Your task to perform on an android device: toggle location history Image 0: 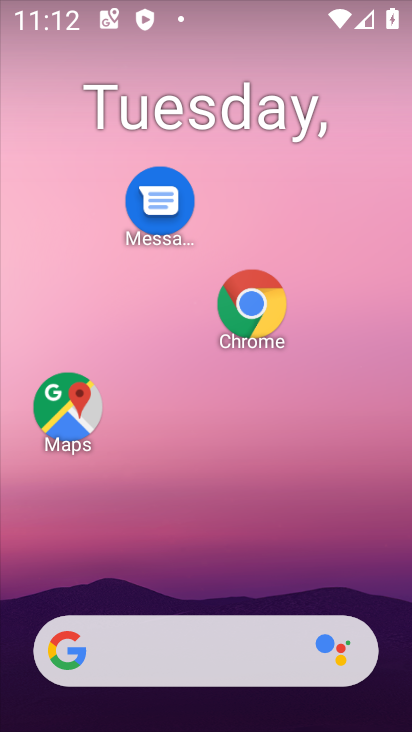
Step 0: drag from (316, 625) to (312, 212)
Your task to perform on an android device: toggle location history Image 1: 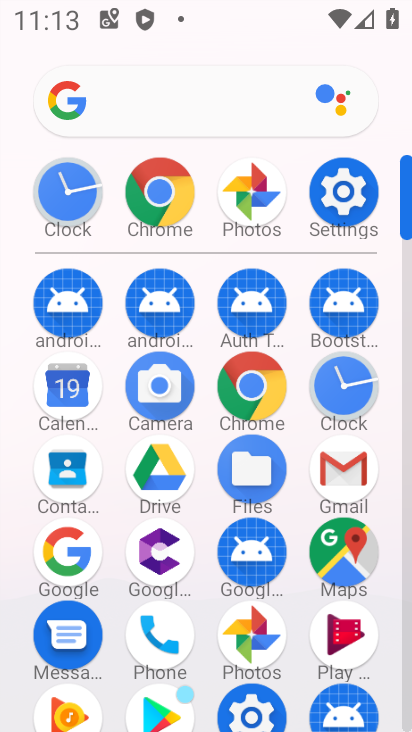
Step 1: click (336, 189)
Your task to perform on an android device: toggle location history Image 2: 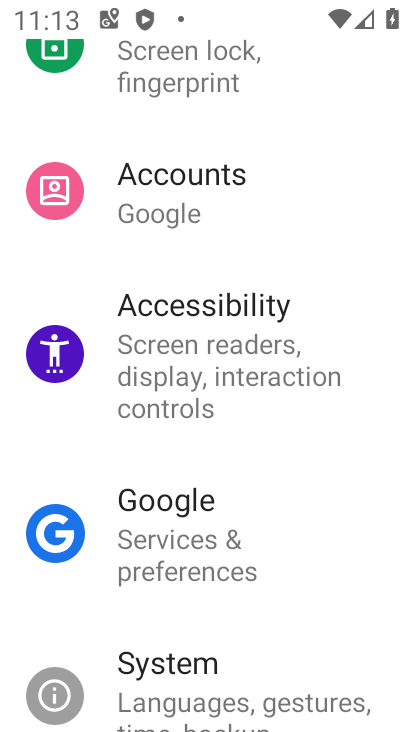
Step 2: drag from (247, 630) to (315, 195)
Your task to perform on an android device: toggle location history Image 3: 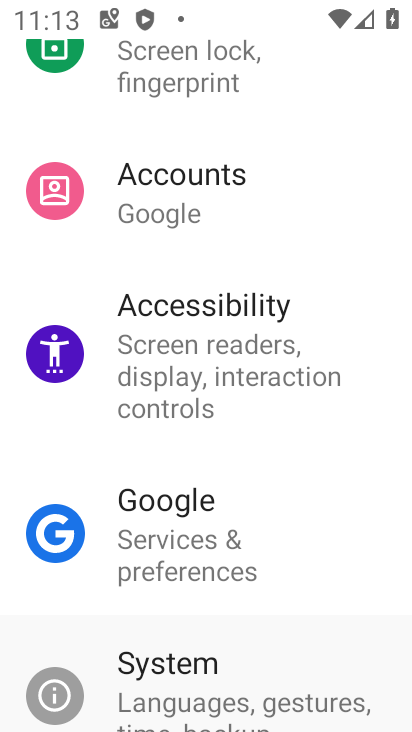
Step 3: drag from (254, 560) to (282, 179)
Your task to perform on an android device: toggle location history Image 4: 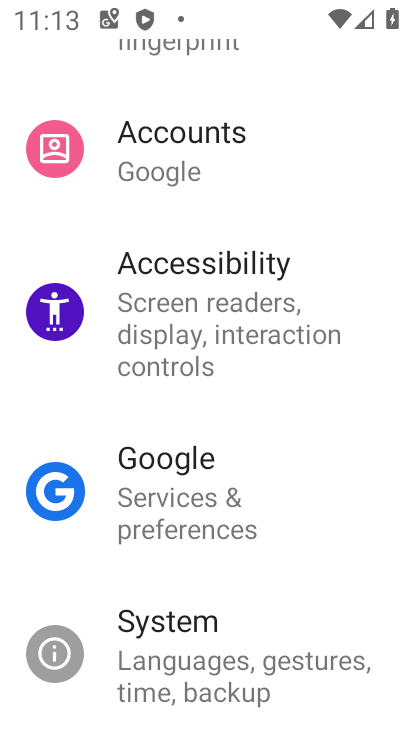
Step 4: drag from (228, 579) to (254, 118)
Your task to perform on an android device: toggle location history Image 5: 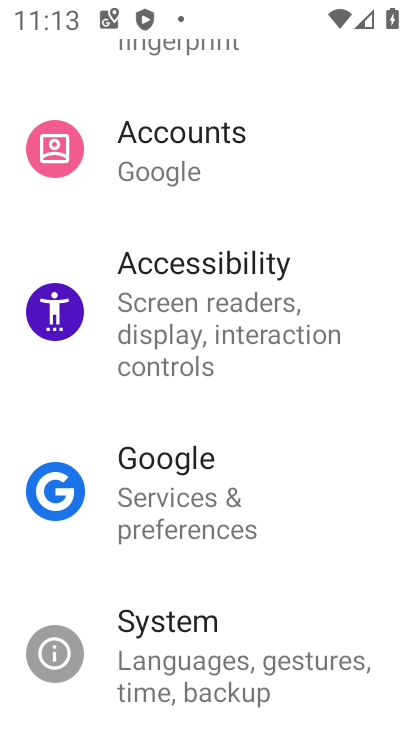
Step 5: drag from (224, 546) to (235, 167)
Your task to perform on an android device: toggle location history Image 6: 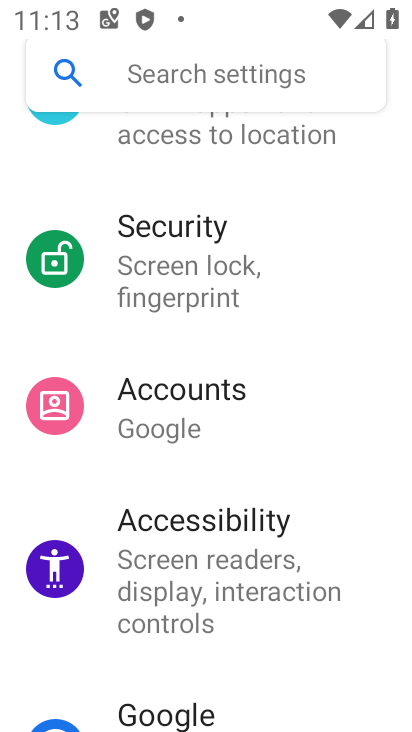
Step 6: drag from (214, 531) to (278, 172)
Your task to perform on an android device: toggle location history Image 7: 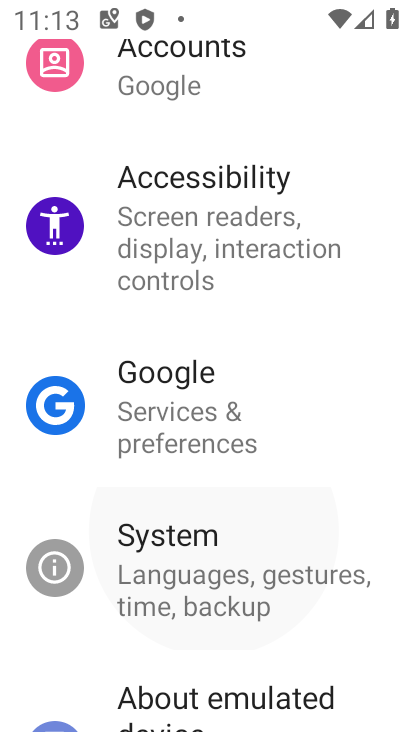
Step 7: drag from (229, 504) to (277, 157)
Your task to perform on an android device: toggle location history Image 8: 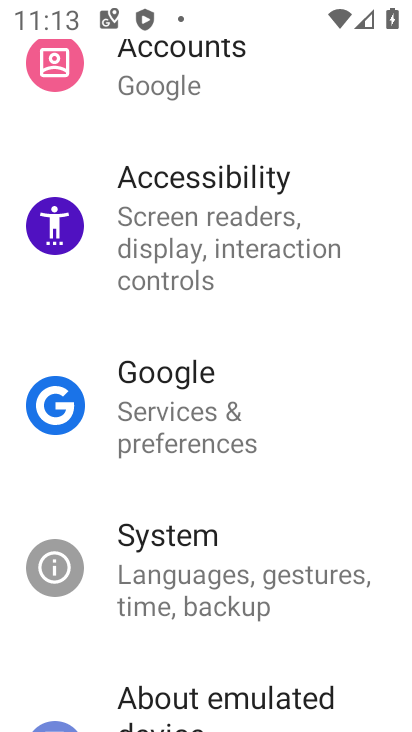
Step 8: drag from (248, 211) to (246, 663)
Your task to perform on an android device: toggle location history Image 9: 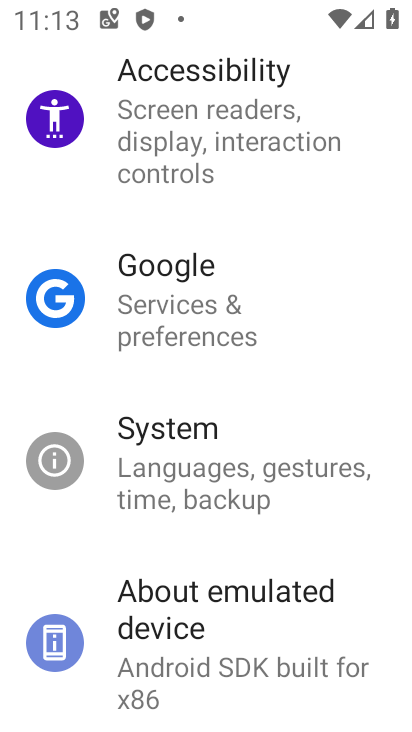
Step 9: drag from (206, 251) to (201, 657)
Your task to perform on an android device: toggle location history Image 10: 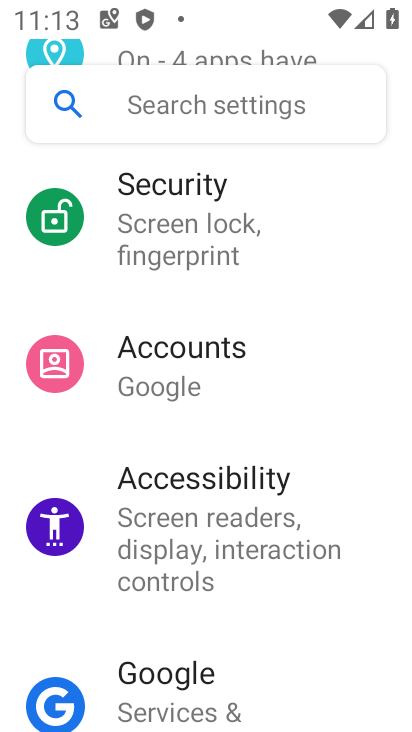
Step 10: drag from (233, 334) to (246, 599)
Your task to perform on an android device: toggle location history Image 11: 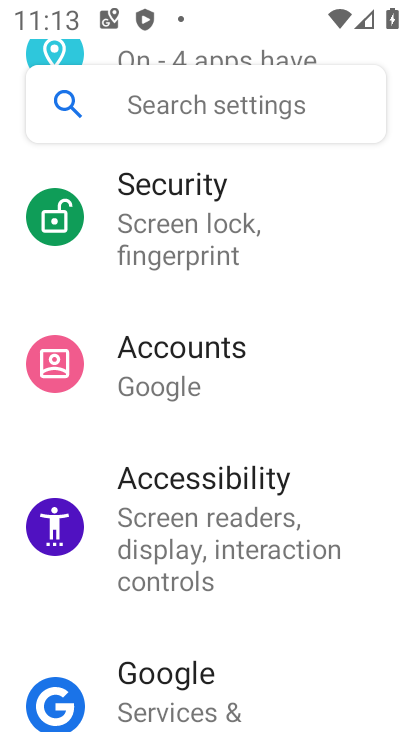
Step 11: drag from (289, 230) to (299, 620)
Your task to perform on an android device: toggle location history Image 12: 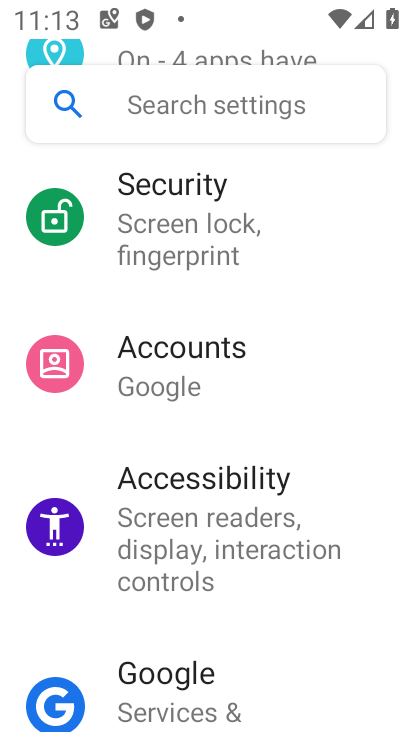
Step 12: drag from (367, 159) to (323, 344)
Your task to perform on an android device: toggle location history Image 13: 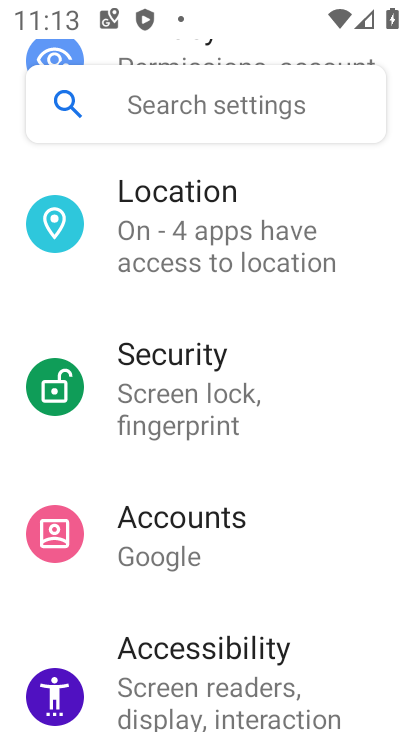
Step 13: drag from (285, 183) to (321, 253)
Your task to perform on an android device: toggle location history Image 14: 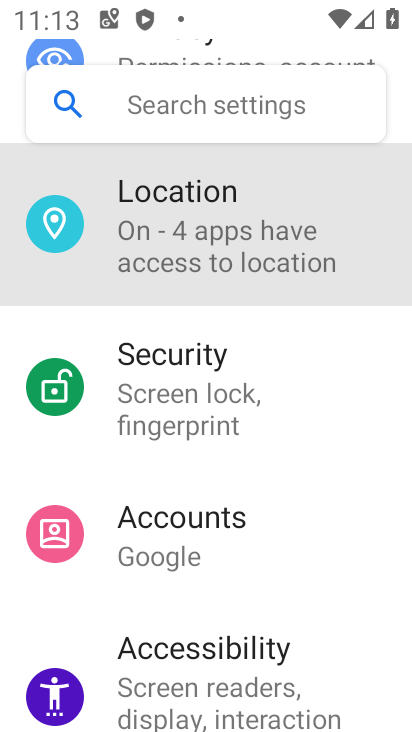
Step 14: click (270, 223)
Your task to perform on an android device: toggle location history Image 15: 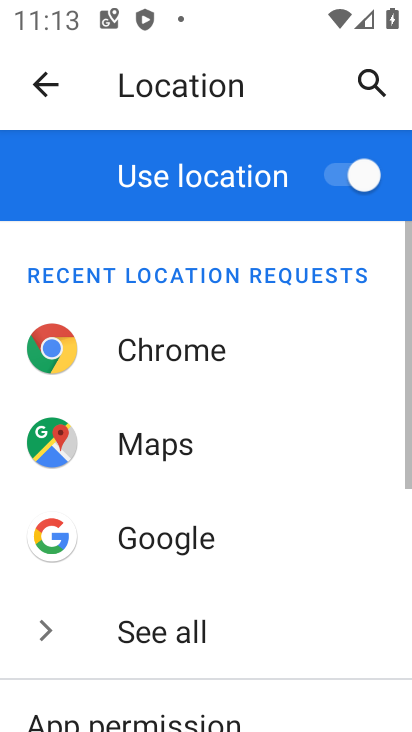
Step 15: drag from (270, 649) to (319, 130)
Your task to perform on an android device: toggle location history Image 16: 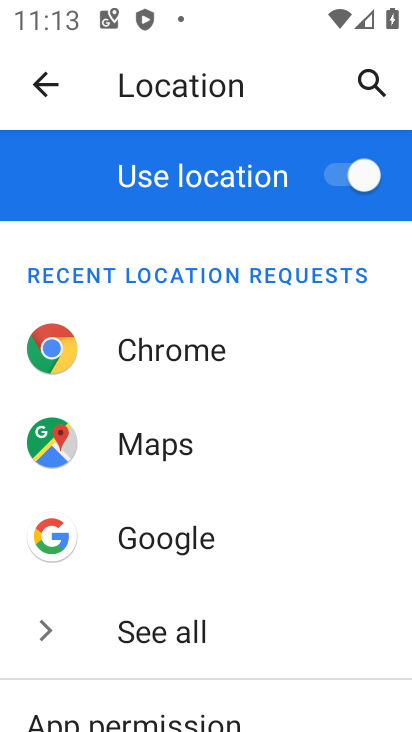
Step 16: drag from (252, 628) to (203, 260)
Your task to perform on an android device: toggle location history Image 17: 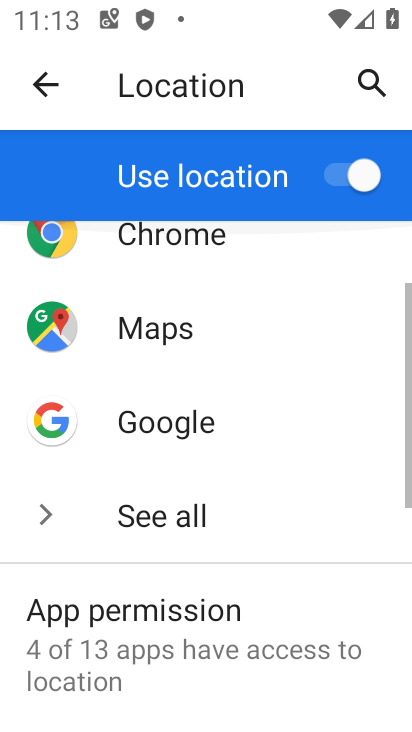
Step 17: drag from (191, 504) to (203, 279)
Your task to perform on an android device: toggle location history Image 18: 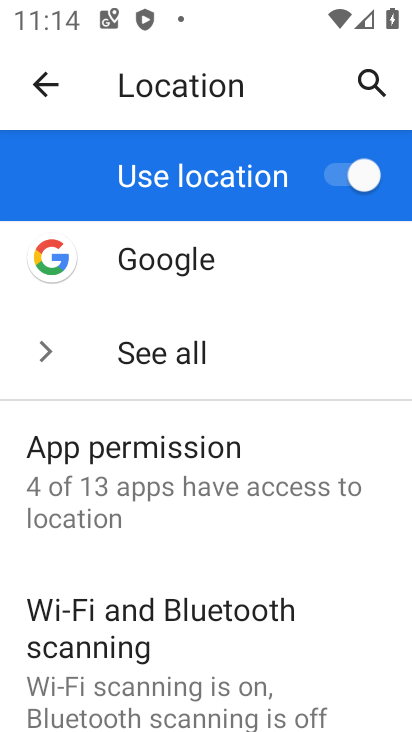
Step 18: drag from (187, 630) to (296, 208)
Your task to perform on an android device: toggle location history Image 19: 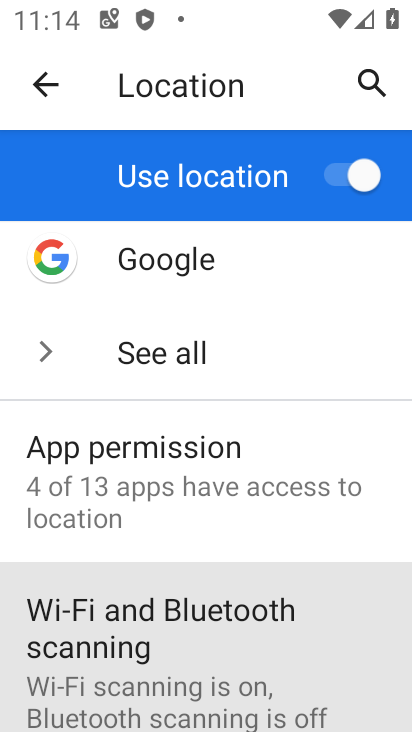
Step 19: drag from (243, 612) to (280, 317)
Your task to perform on an android device: toggle location history Image 20: 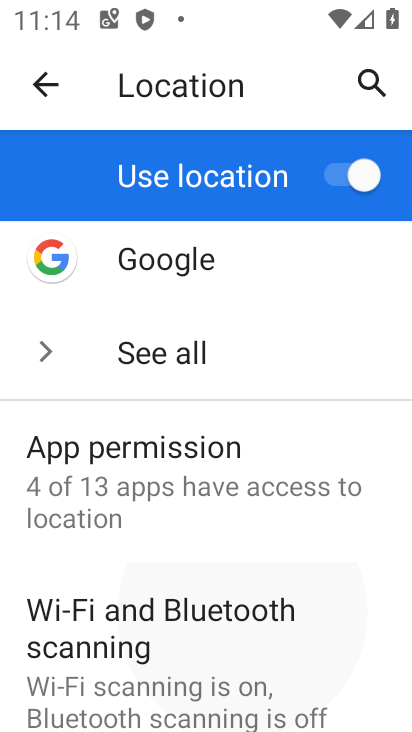
Step 20: drag from (213, 619) to (288, 265)
Your task to perform on an android device: toggle location history Image 21: 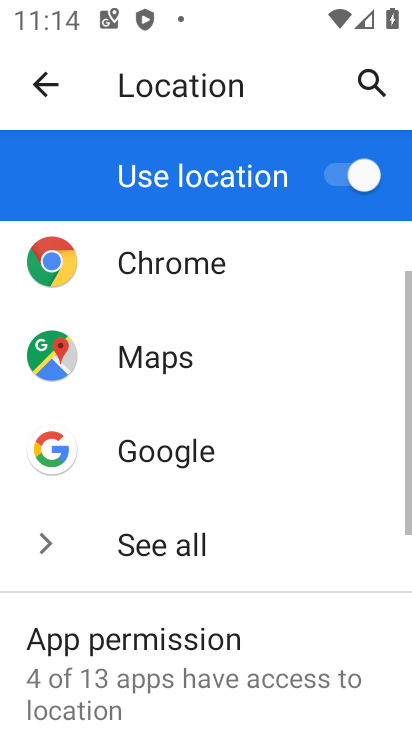
Step 21: drag from (213, 505) to (267, 302)
Your task to perform on an android device: toggle location history Image 22: 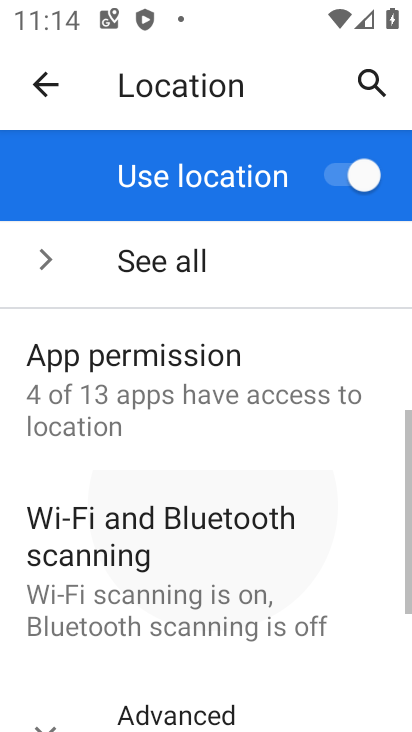
Step 22: drag from (240, 548) to (281, 288)
Your task to perform on an android device: toggle location history Image 23: 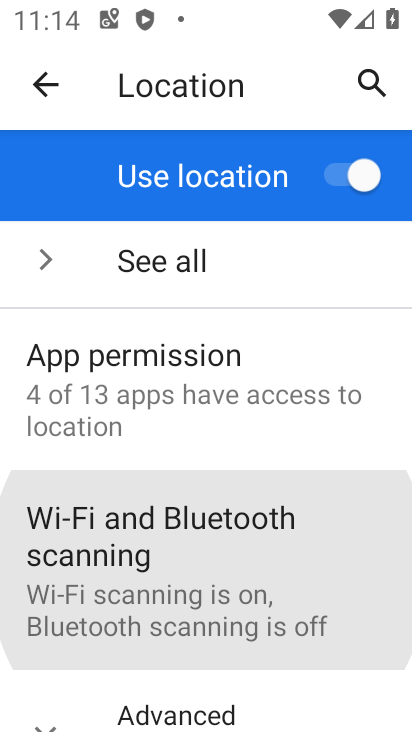
Step 23: drag from (234, 572) to (280, 291)
Your task to perform on an android device: toggle location history Image 24: 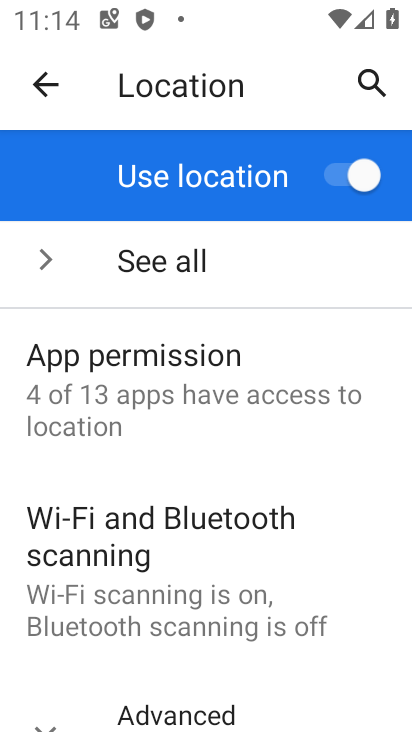
Step 24: drag from (242, 627) to (262, 313)
Your task to perform on an android device: toggle location history Image 25: 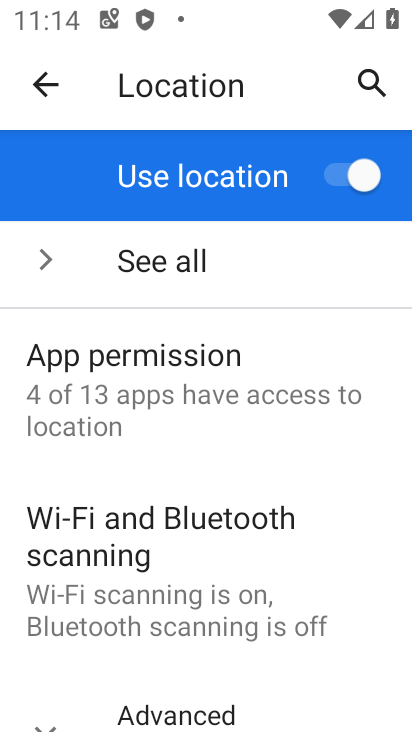
Step 25: drag from (241, 660) to (328, 131)
Your task to perform on an android device: toggle location history Image 26: 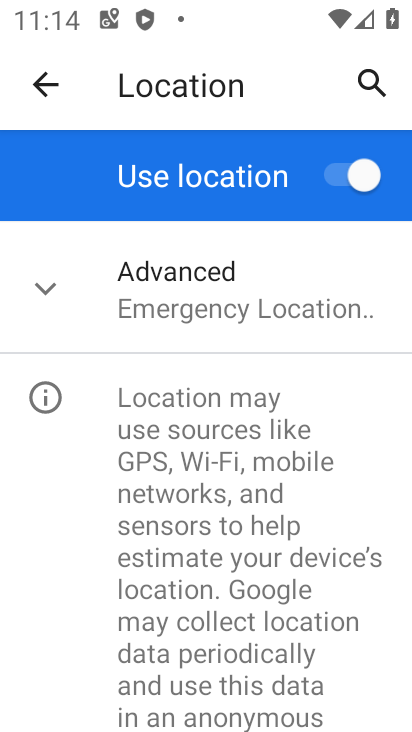
Step 26: drag from (230, 606) to (265, 326)
Your task to perform on an android device: toggle location history Image 27: 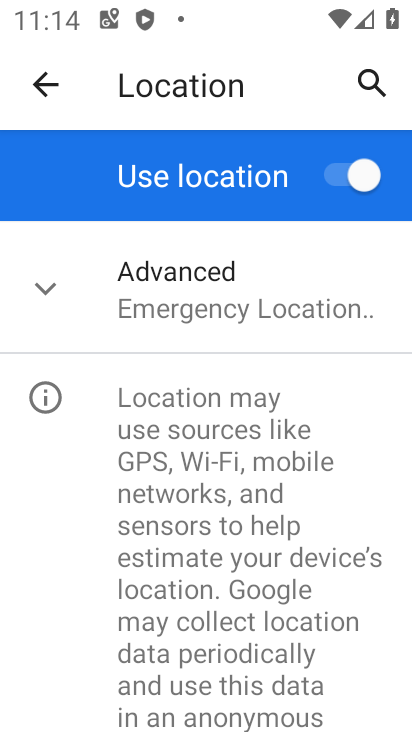
Step 27: click (244, 318)
Your task to perform on an android device: toggle location history Image 28: 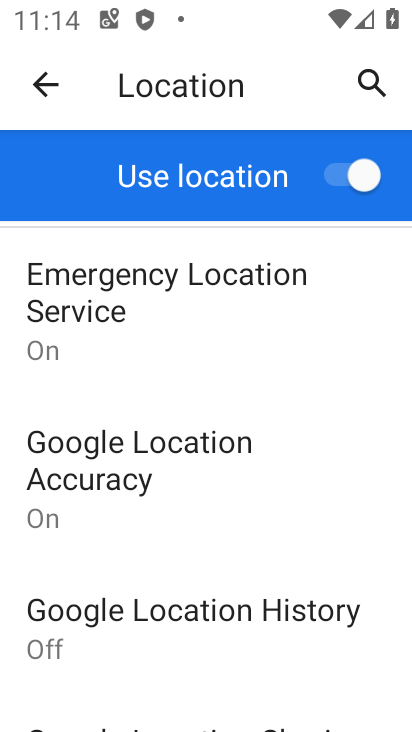
Step 28: click (198, 650)
Your task to perform on an android device: toggle location history Image 29: 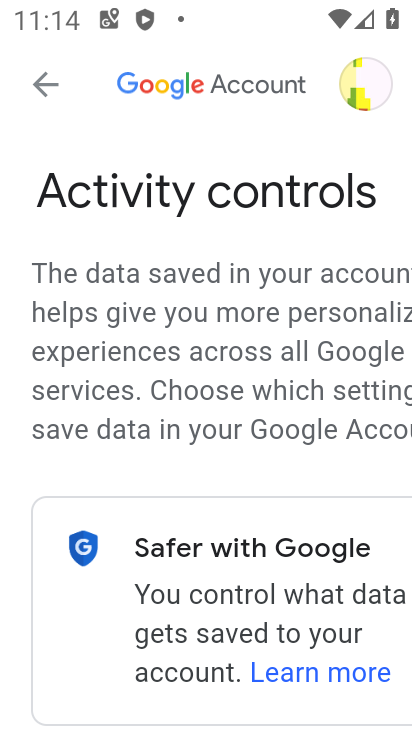
Step 29: drag from (238, 629) to (126, 206)
Your task to perform on an android device: toggle location history Image 30: 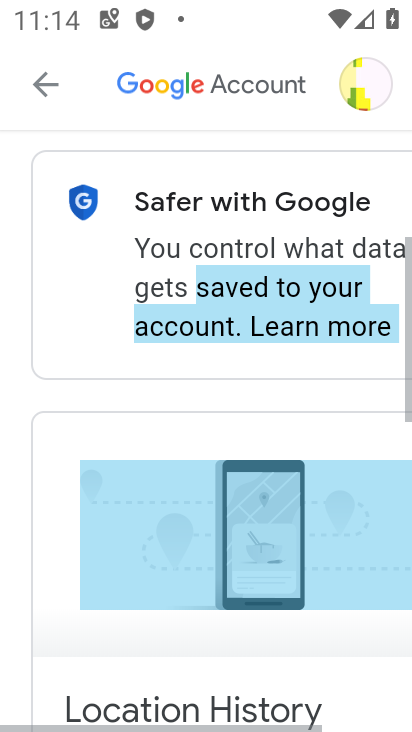
Step 30: drag from (59, 548) to (281, 179)
Your task to perform on an android device: toggle location history Image 31: 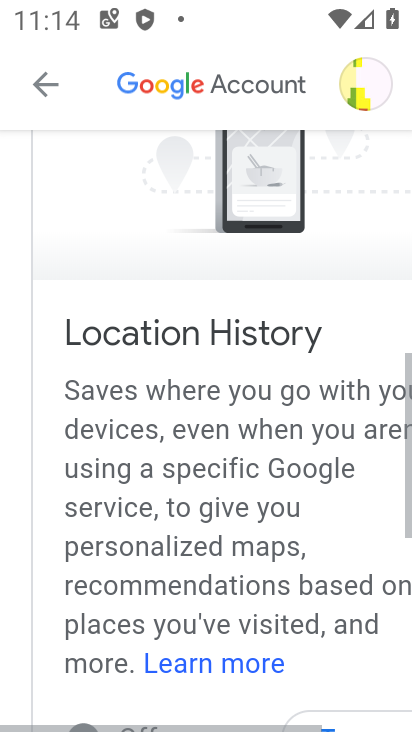
Step 31: click (308, 262)
Your task to perform on an android device: toggle location history Image 32: 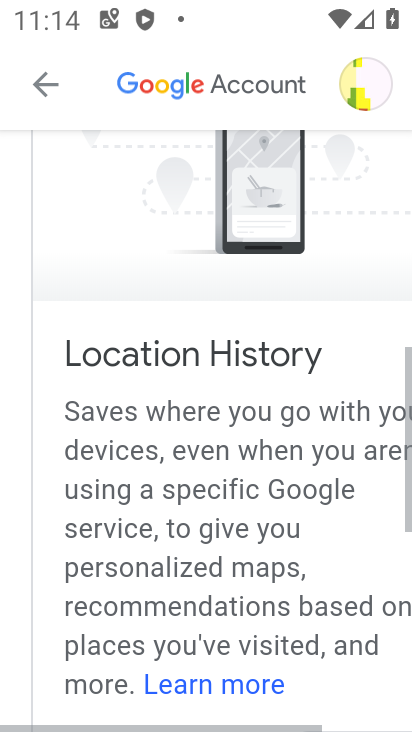
Step 32: click (332, 285)
Your task to perform on an android device: toggle location history Image 33: 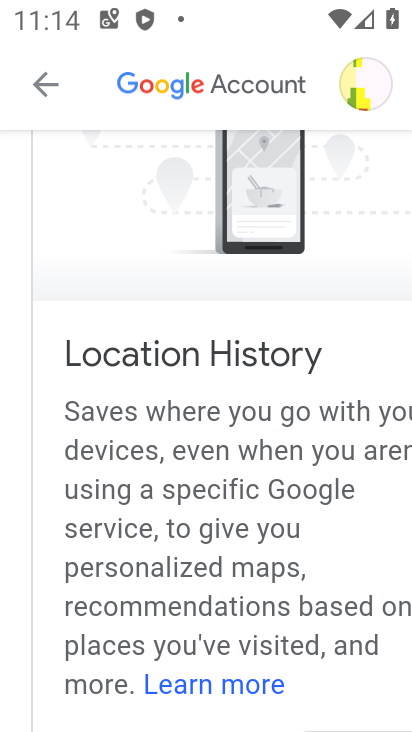
Step 33: task complete